Your task to perform on an android device: Search for sushi restaurants on Maps Image 0: 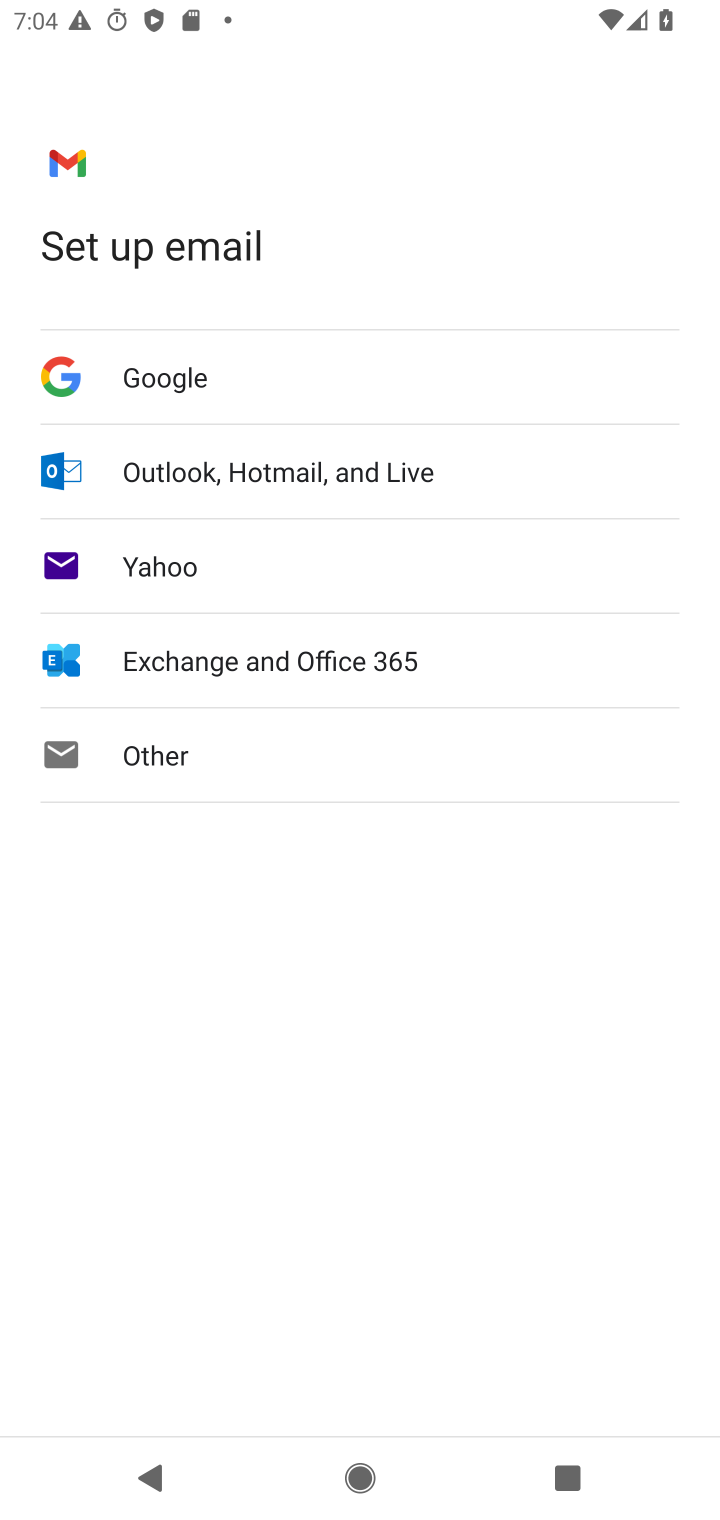
Step 0: press home button
Your task to perform on an android device: Search for sushi restaurants on Maps Image 1: 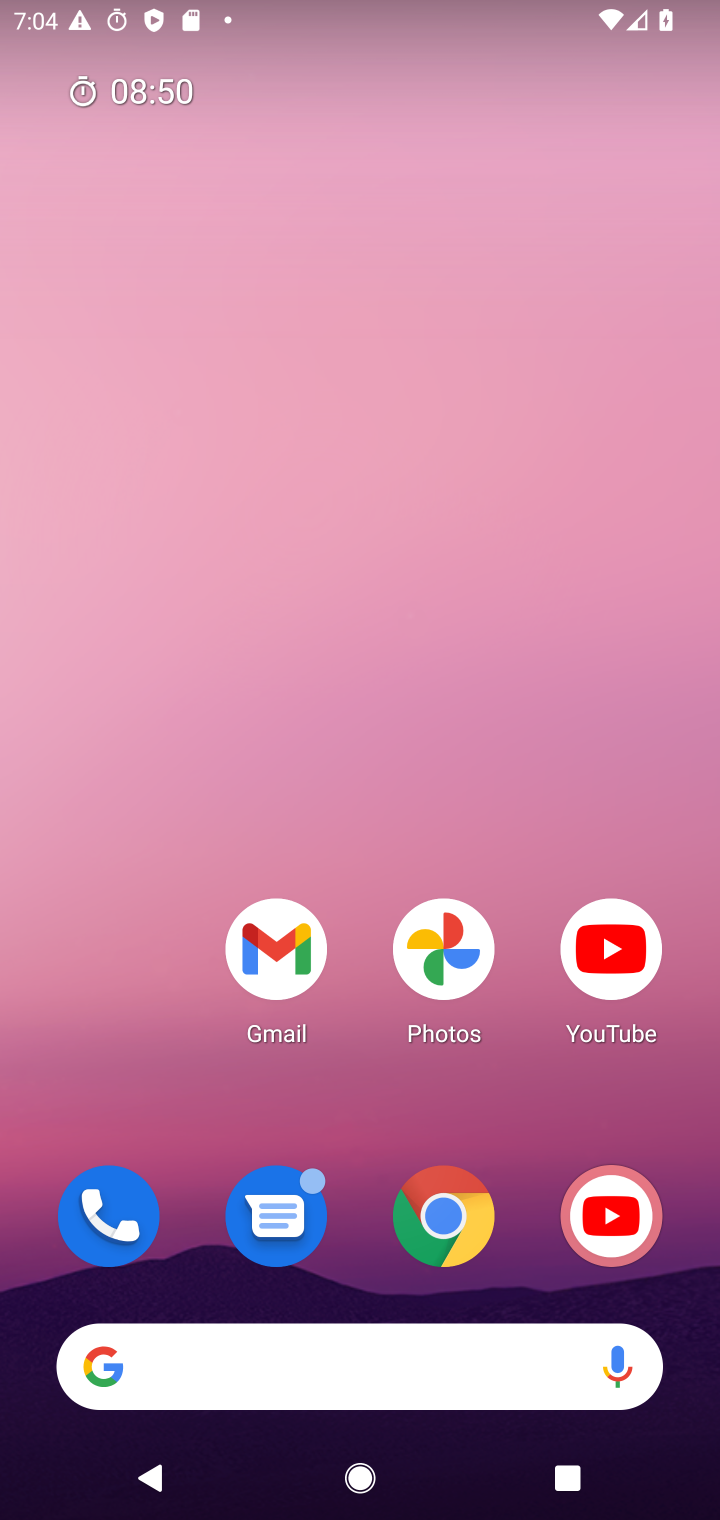
Step 1: drag from (363, 884) to (700, 135)
Your task to perform on an android device: Search for sushi restaurants on Maps Image 2: 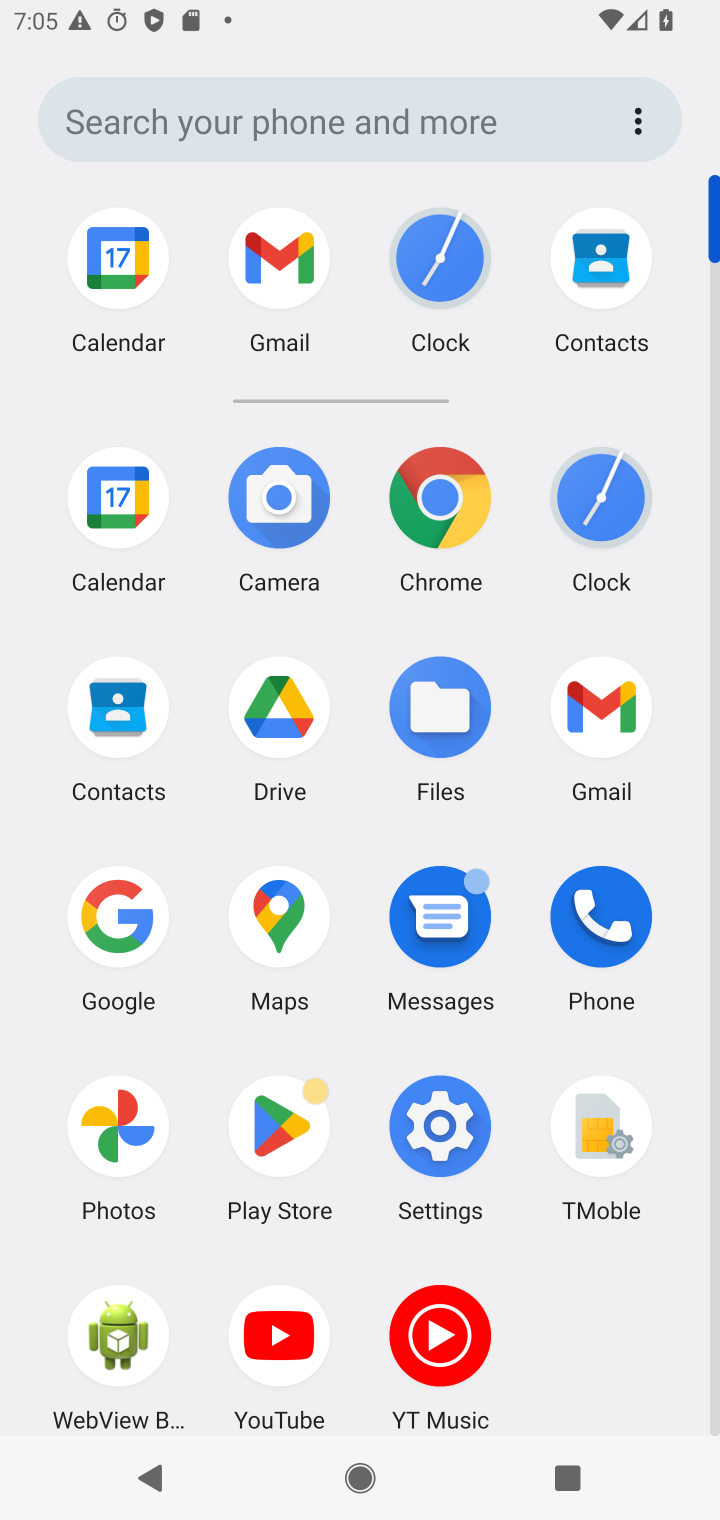
Step 2: click (277, 894)
Your task to perform on an android device: Search for sushi restaurants on Maps Image 3: 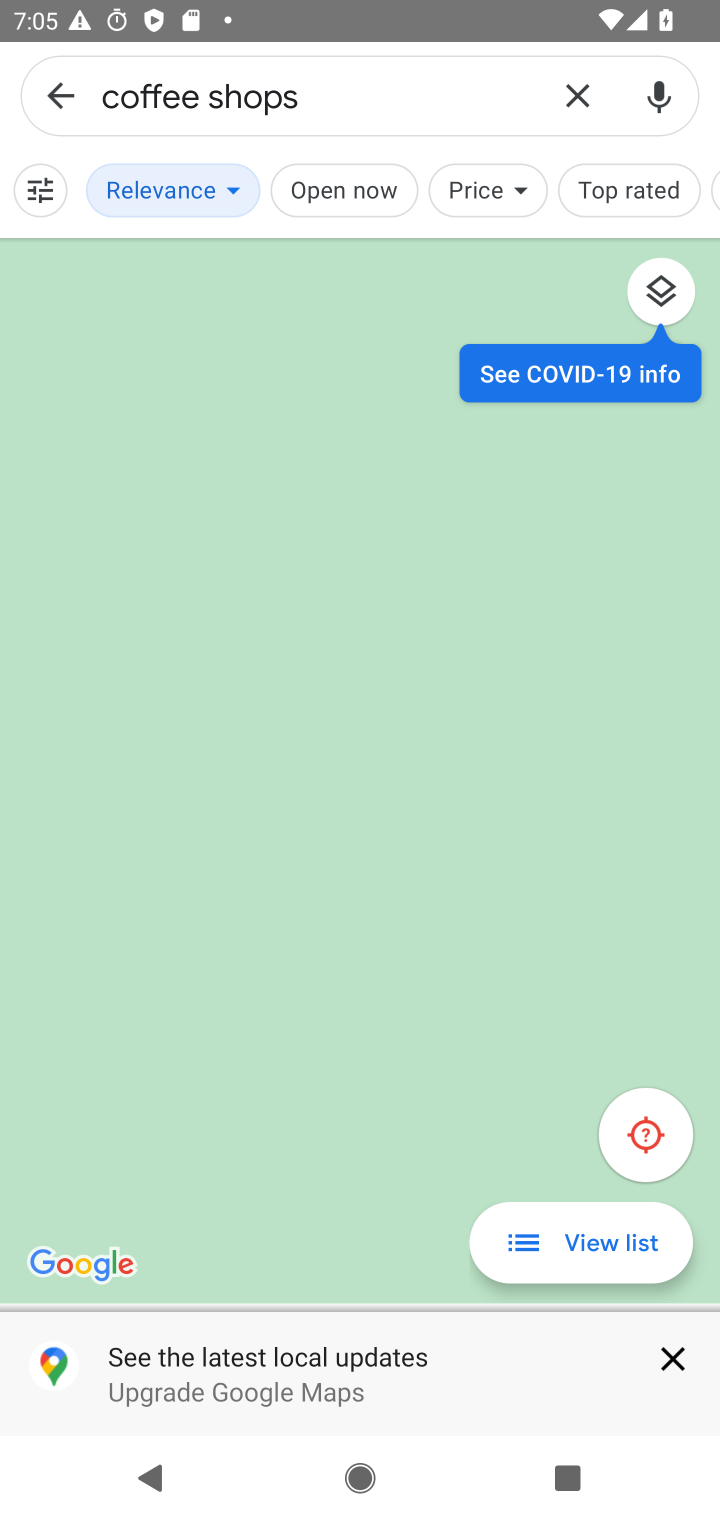
Step 3: press home button
Your task to perform on an android device: Search for sushi restaurants on Maps Image 4: 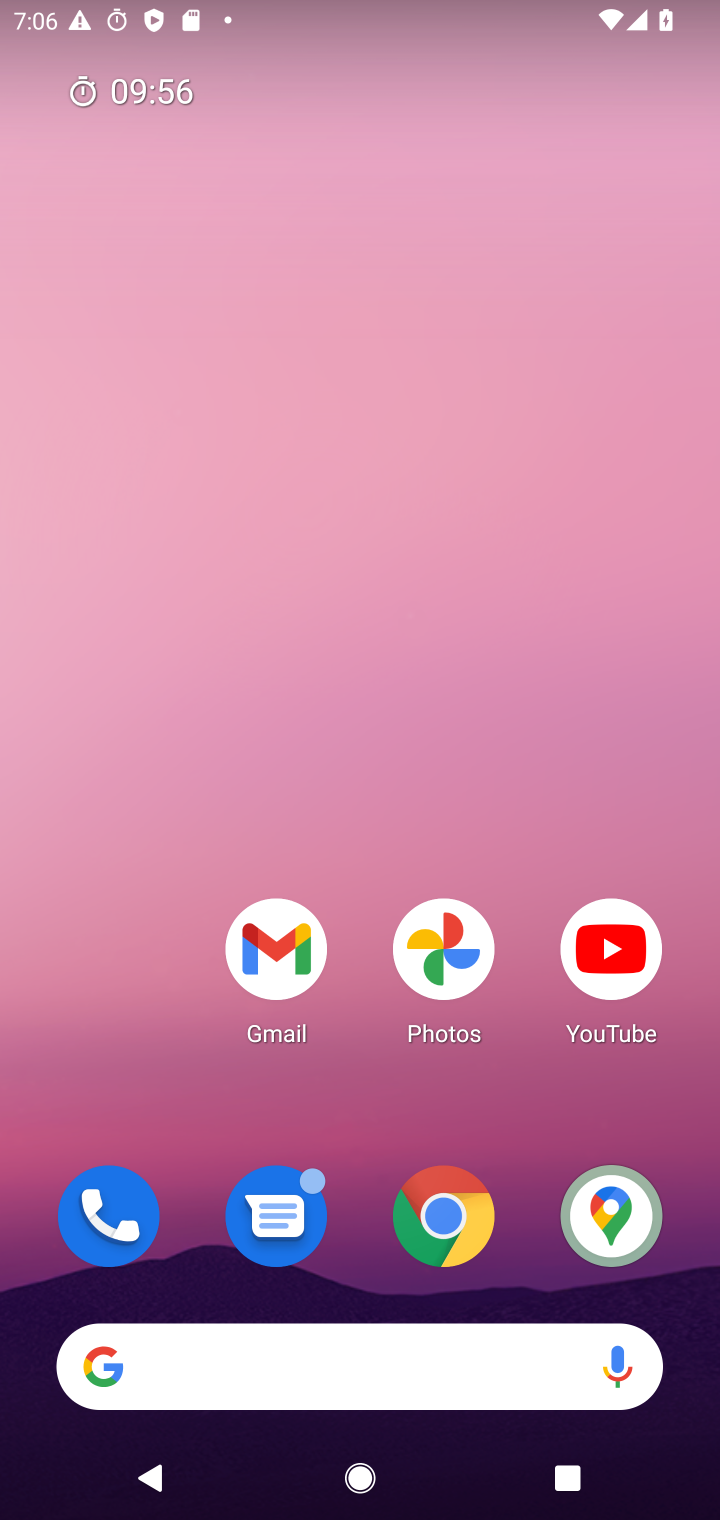
Step 4: click (615, 1230)
Your task to perform on an android device: Search for sushi restaurants on Maps Image 5: 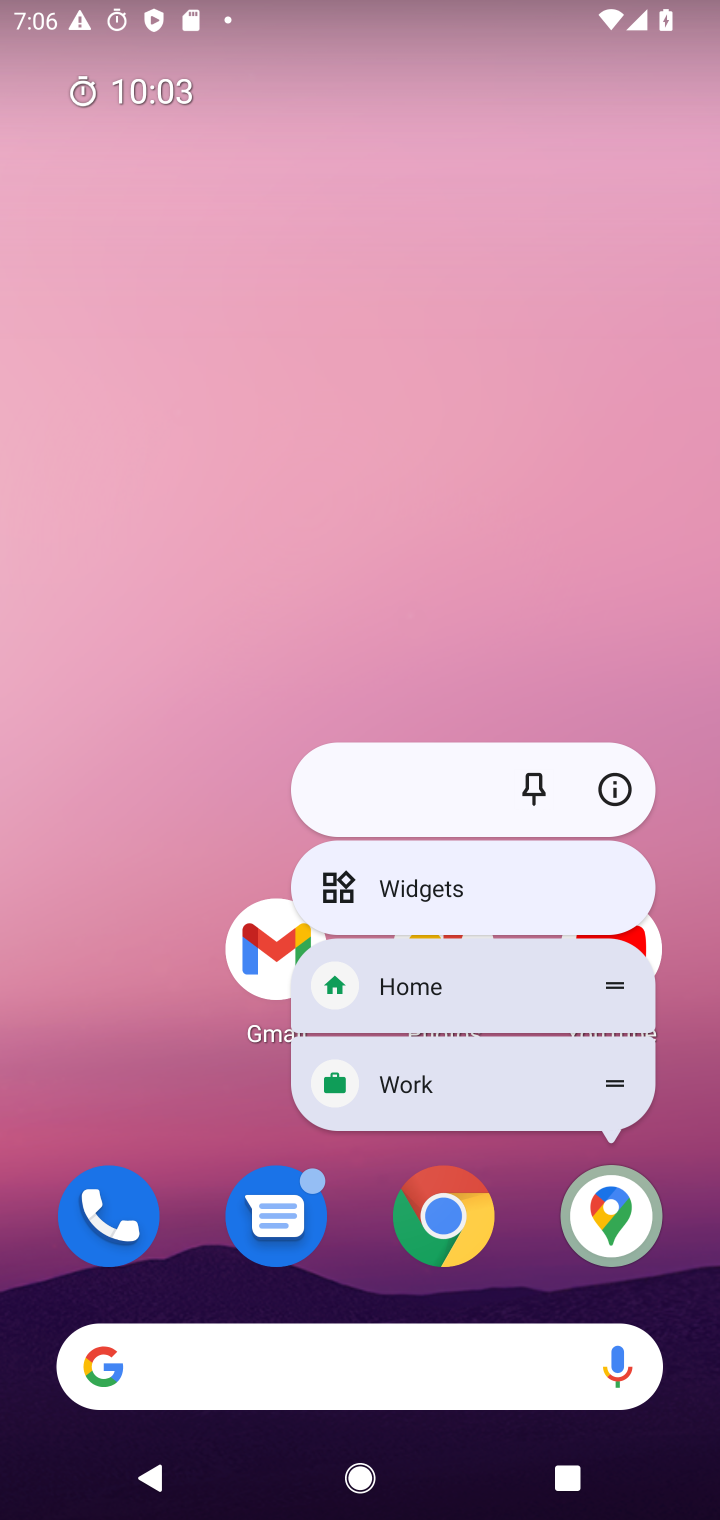
Step 5: click (627, 1225)
Your task to perform on an android device: Search for sushi restaurants on Maps Image 6: 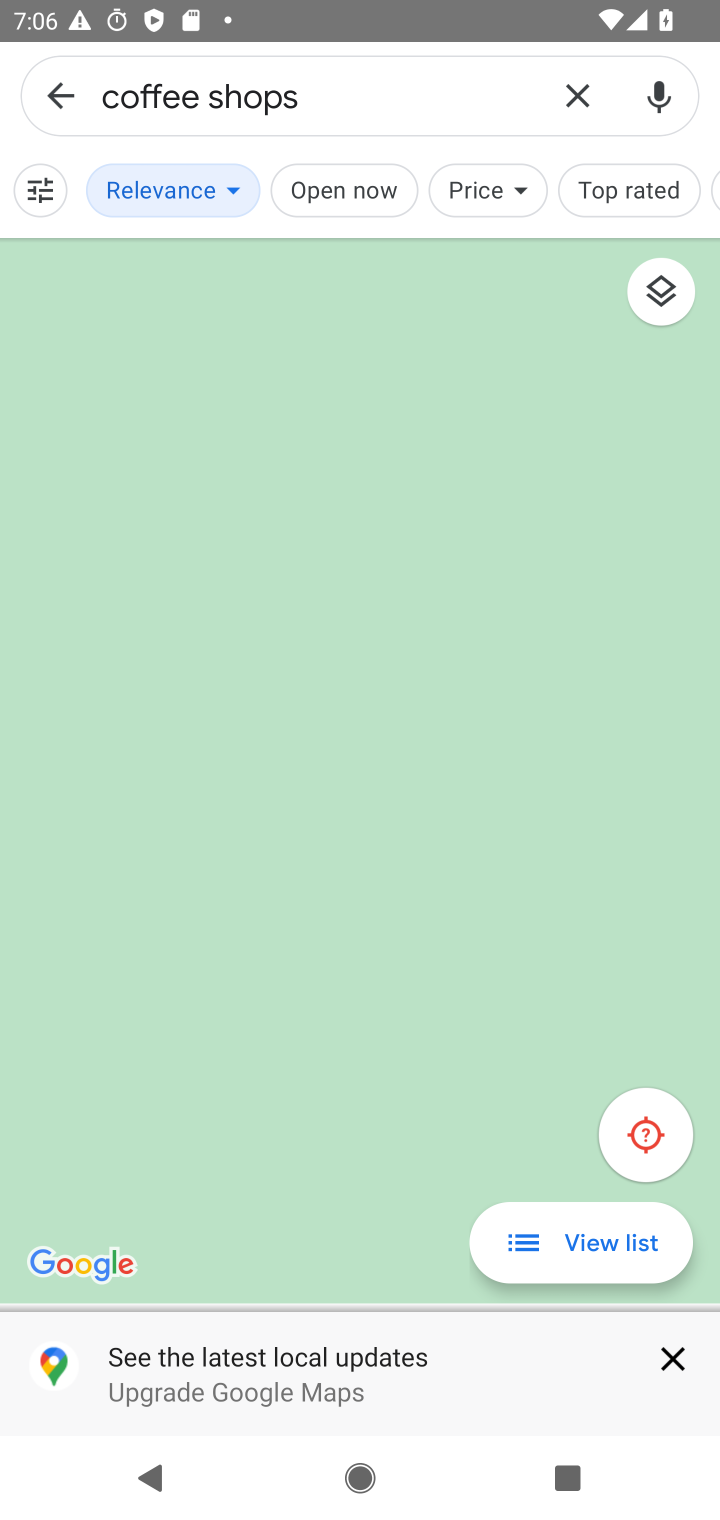
Step 6: click (579, 88)
Your task to perform on an android device: Search for sushi restaurants on Maps Image 7: 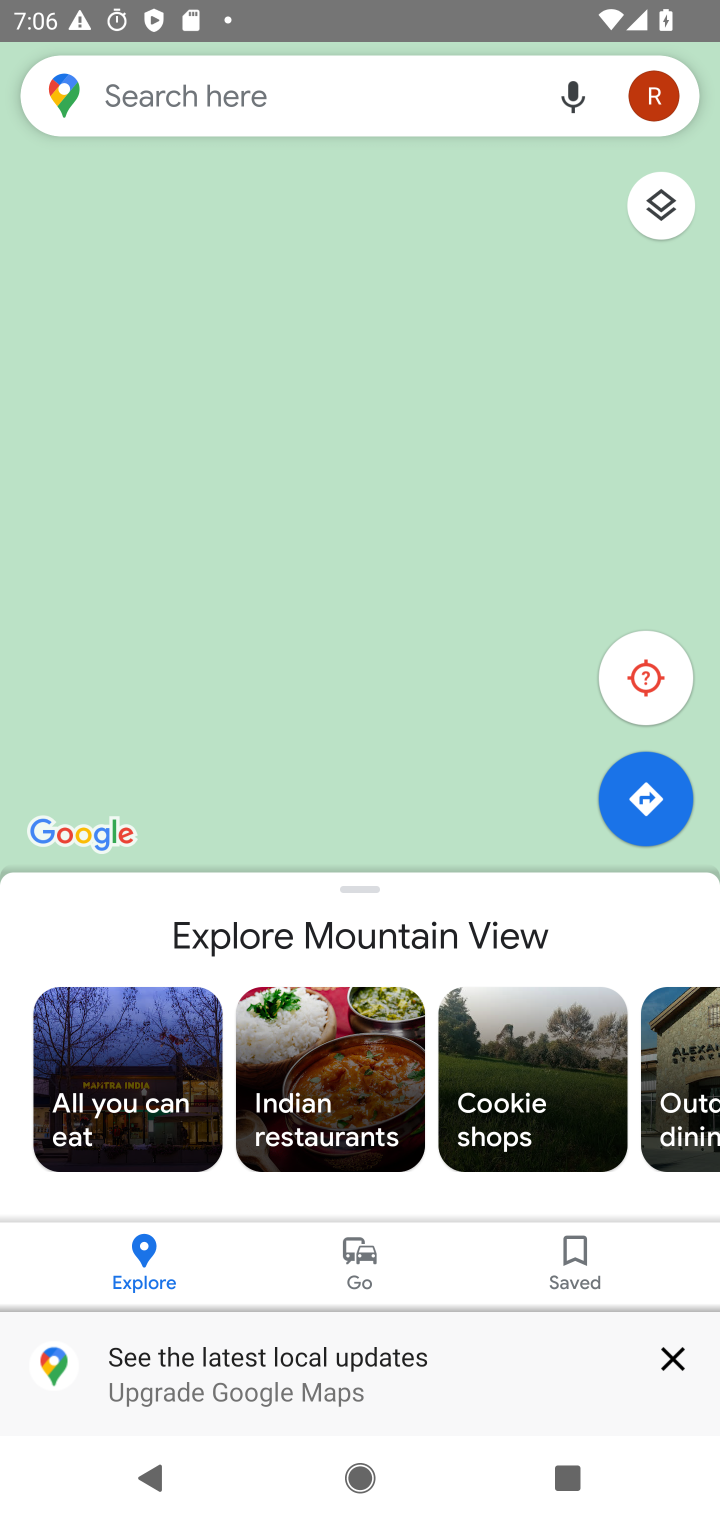
Step 7: click (439, 84)
Your task to perform on an android device: Search for sushi restaurants on Maps Image 8: 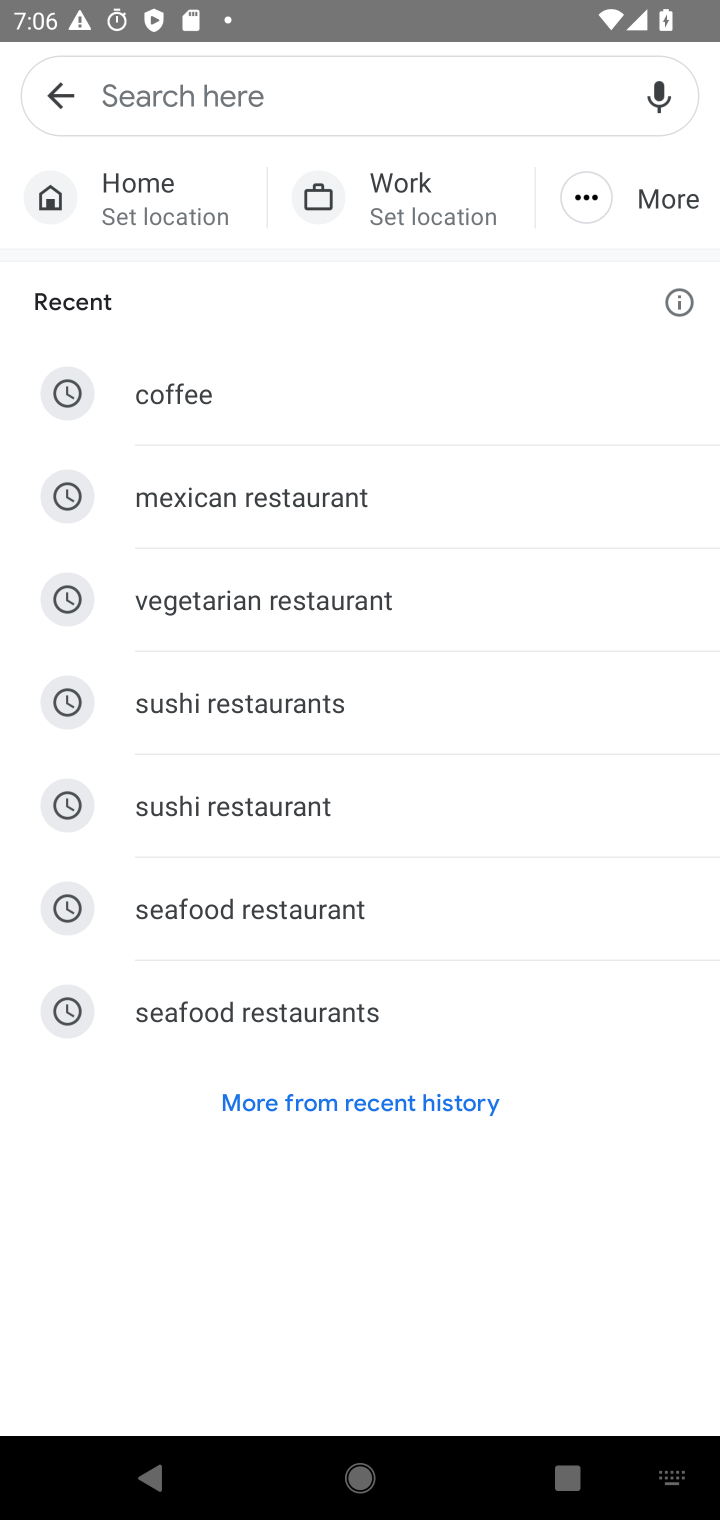
Step 8: type "sushi restaurants"
Your task to perform on an android device: Search for sushi restaurants on Maps Image 9: 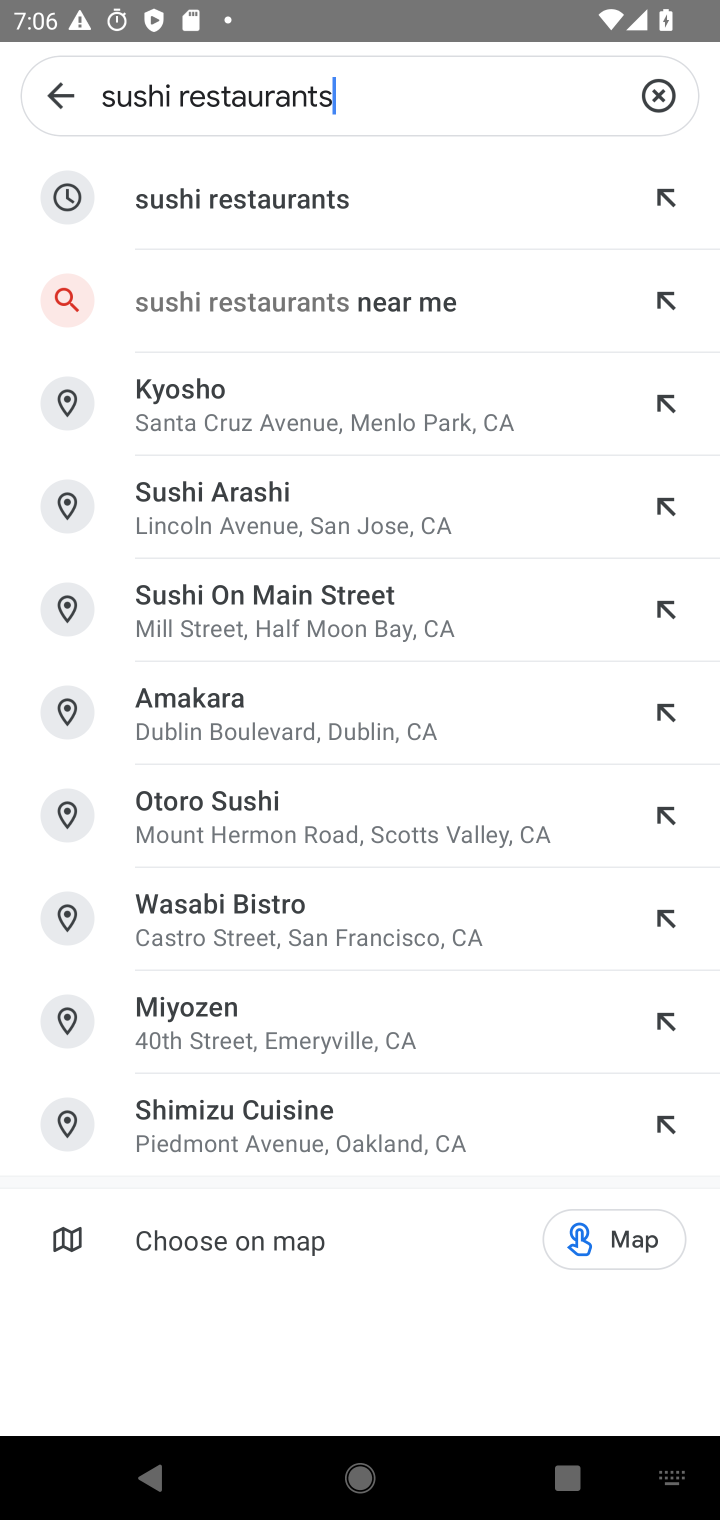
Step 9: click (201, 189)
Your task to perform on an android device: Search for sushi restaurants on Maps Image 10: 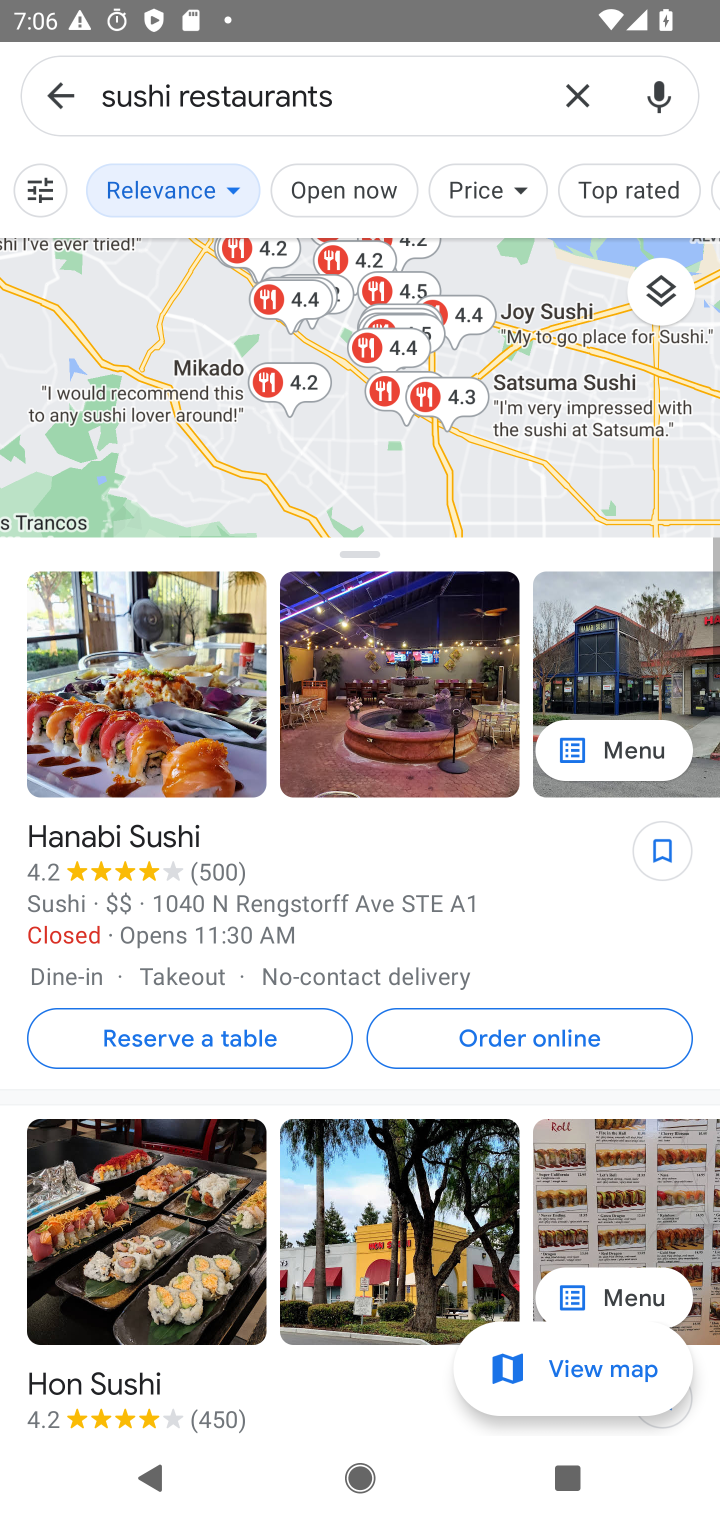
Step 10: task complete